Your task to perform on an android device: turn smart compose on in the gmail app Image 0: 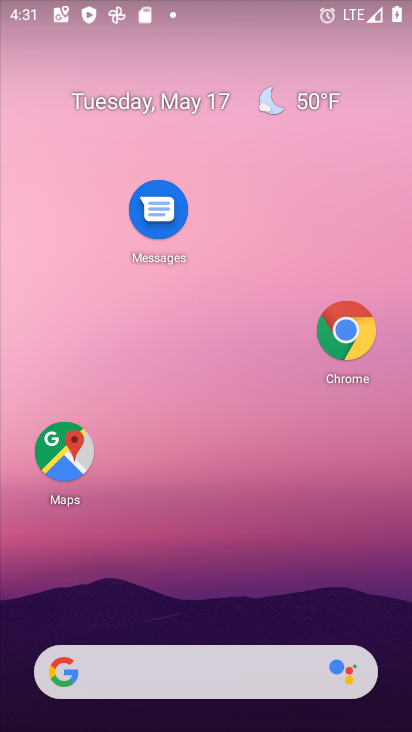
Step 0: drag from (246, 545) to (228, 196)
Your task to perform on an android device: turn smart compose on in the gmail app Image 1: 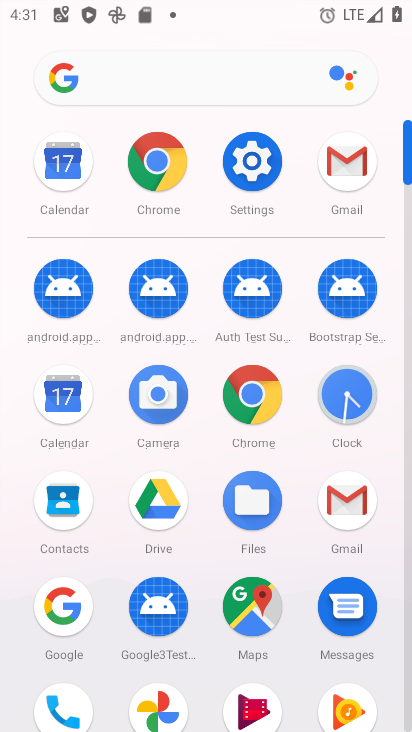
Step 1: click (333, 200)
Your task to perform on an android device: turn smart compose on in the gmail app Image 2: 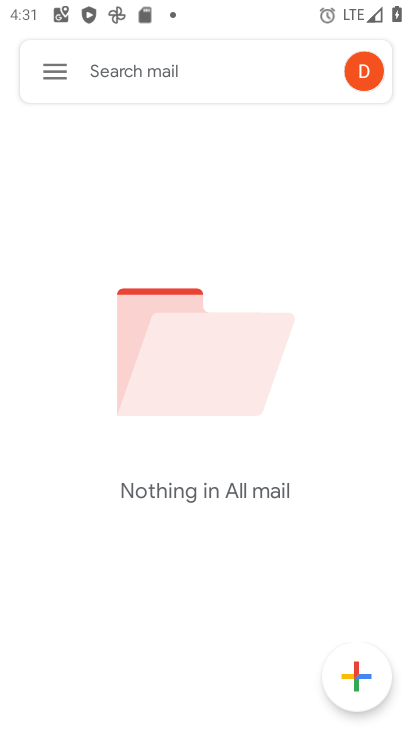
Step 2: click (48, 64)
Your task to perform on an android device: turn smart compose on in the gmail app Image 3: 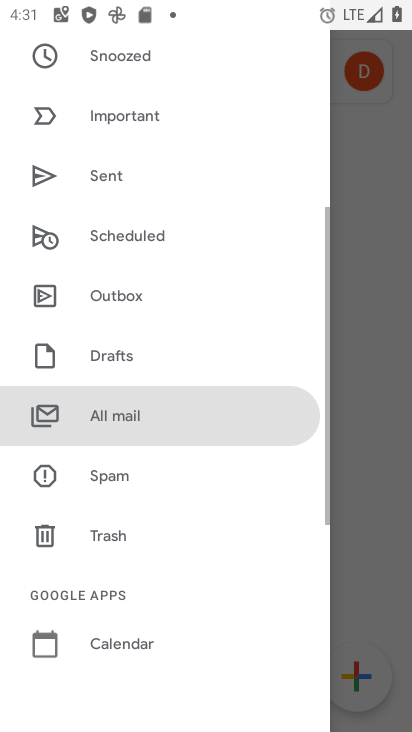
Step 3: drag from (127, 481) to (95, 278)
Your task to perform on an android device: turn smart compose on in the gmail app Image 4: 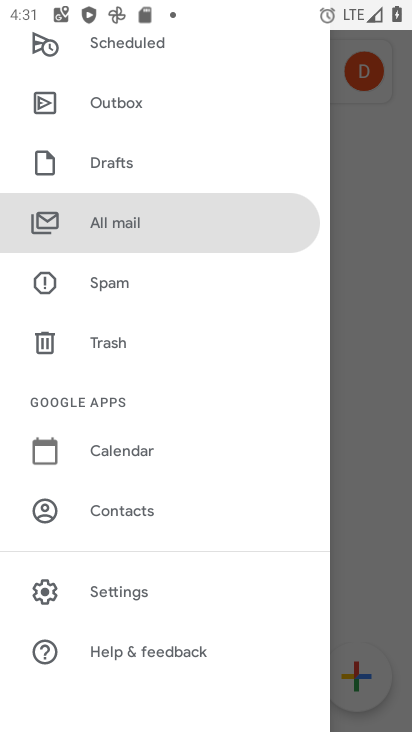
Step 4: click (71, 599)
Your task to perform on an android device: turn smart compose on in the gmail app Image 5: 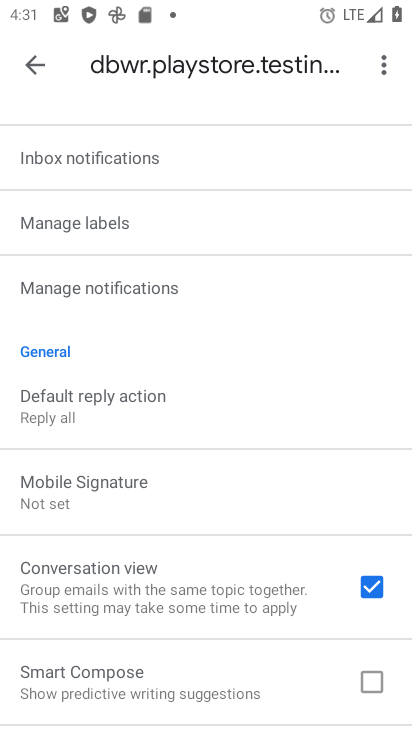
Step 5: drag from (71, 599) to (70, 397)
Your task to perform on an android device: turn smart compose on in the gmail app Image 6: 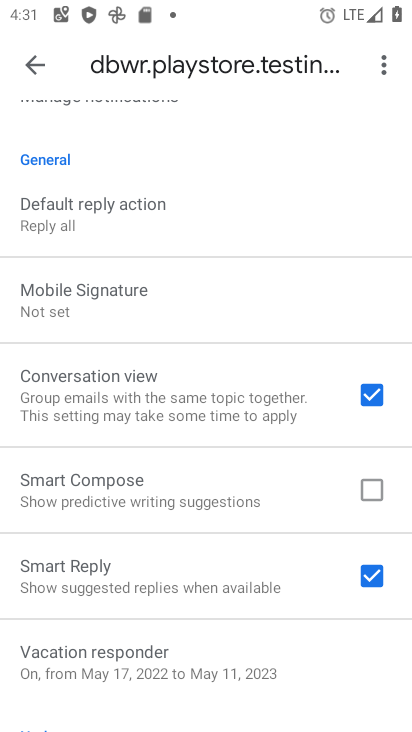
Step 6: click (172, 472)
Your task to perform on an android device: turn smart compose on in the gmail app Image 7: 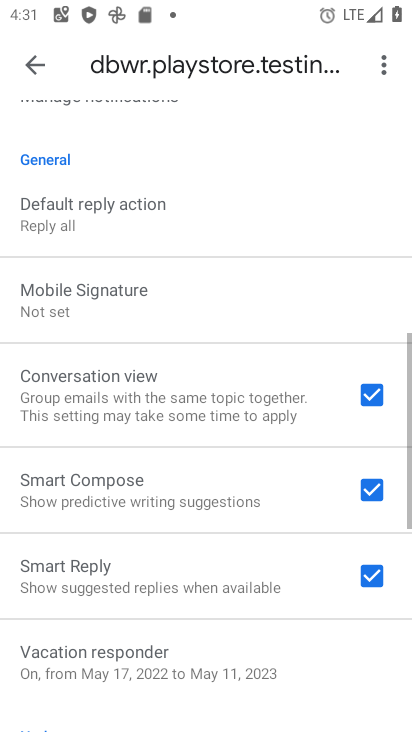
Step 7: task complete